Your task to perform on an android device: check data usage Image 0: 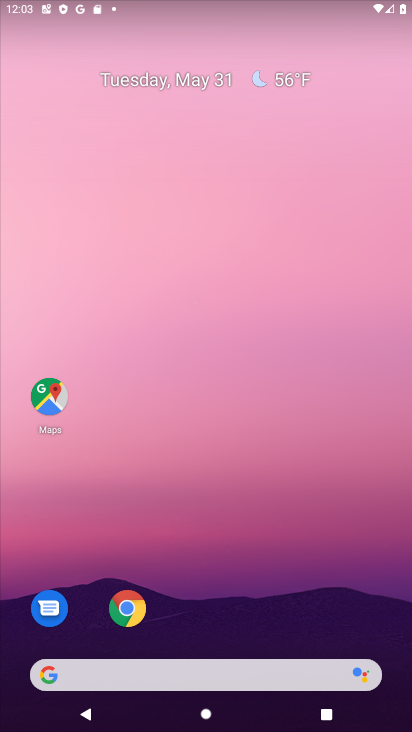
Step 0: drag from (213, 604) to (219, 34)
Your task to perform on an android device: check data usage Image 1: 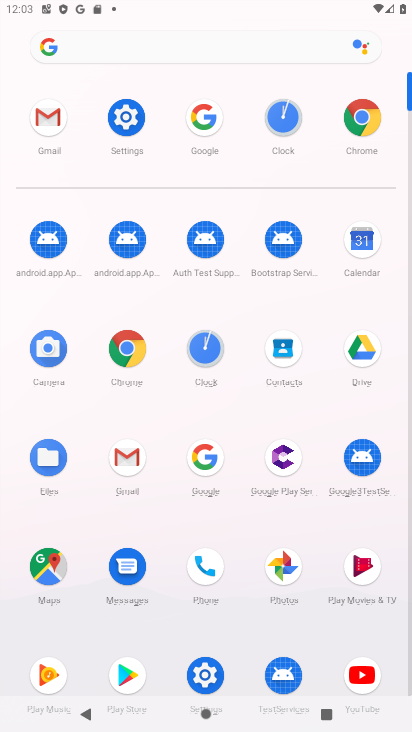
Step 1: click (121, 119)
Your task to perform on an android device: check data usage Image 2: 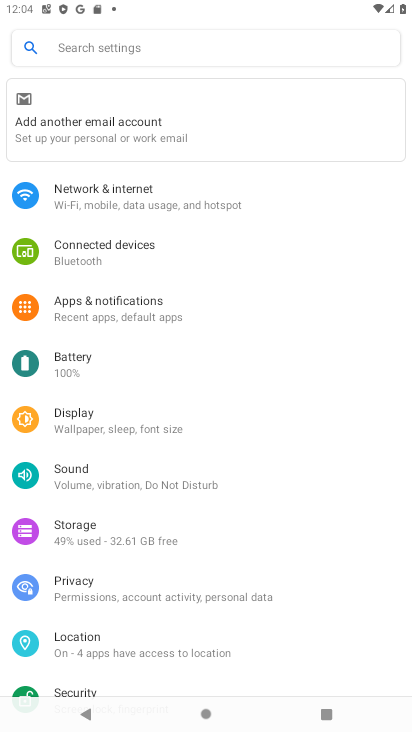
Step 2: click (124, 201)
Your task to perform on an android device: check data usage Image 3: 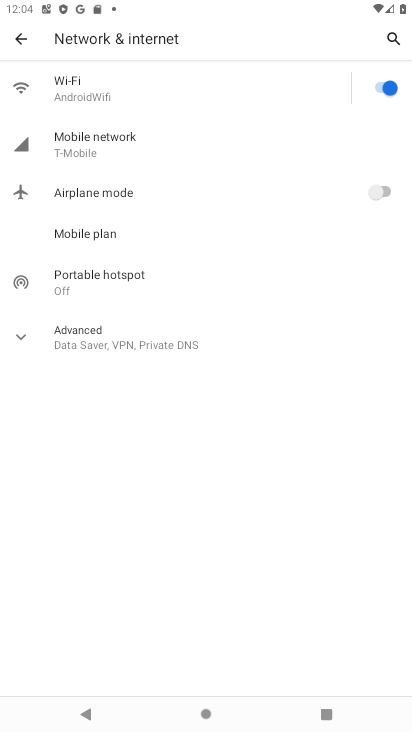
Step 3: click (104, 164)
Your task to perform on an android device: check data usage Image 4: 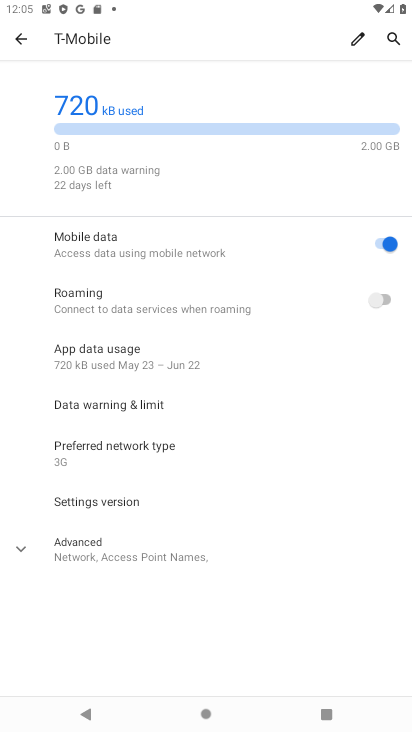
Step 4: task complete